Your task to perform on an android device: open device folders in google photos Image 0: 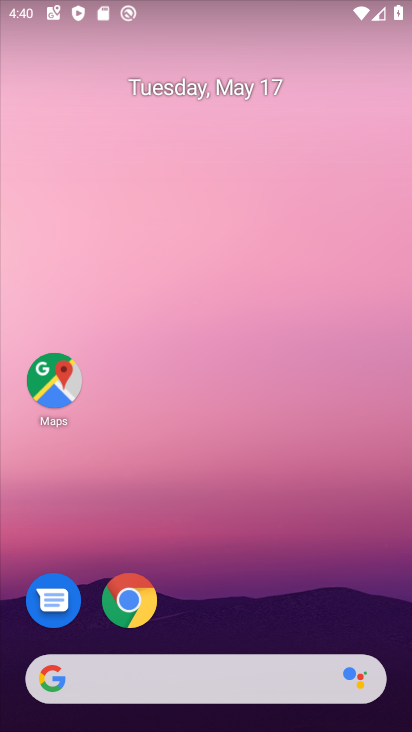
Step 0: drag from (218, 636) to (326, 69)
Your task to perform on an android device: open device folders in google photos Image 1: 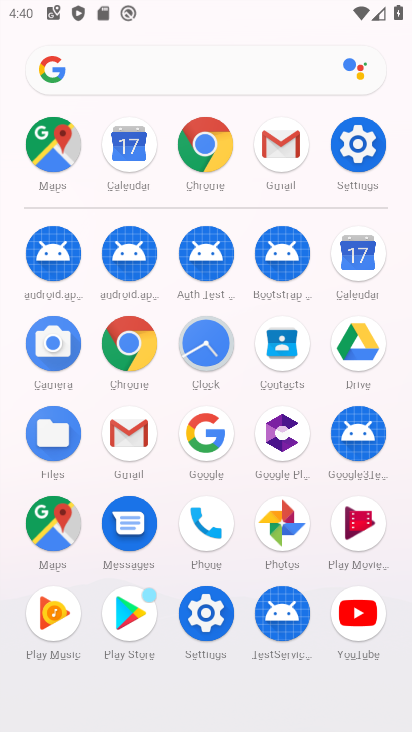
Step 1: click (286, 518)
Your task to perform on an android device: open device folders in google photos Image 2: 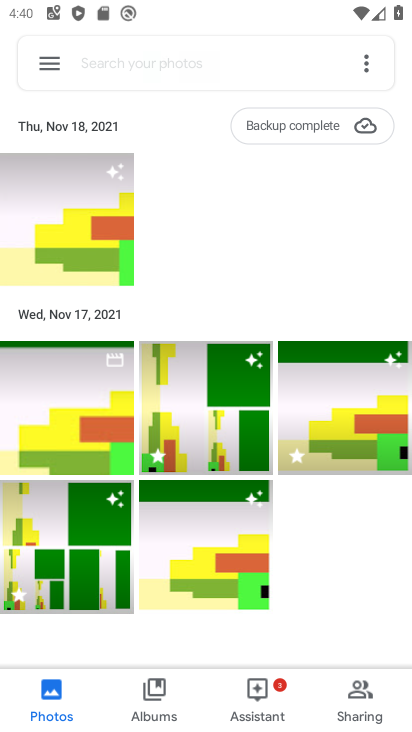
Step 2: click (57, 63)
Your task to perform on an android device: open device folders in google photos Image 3: 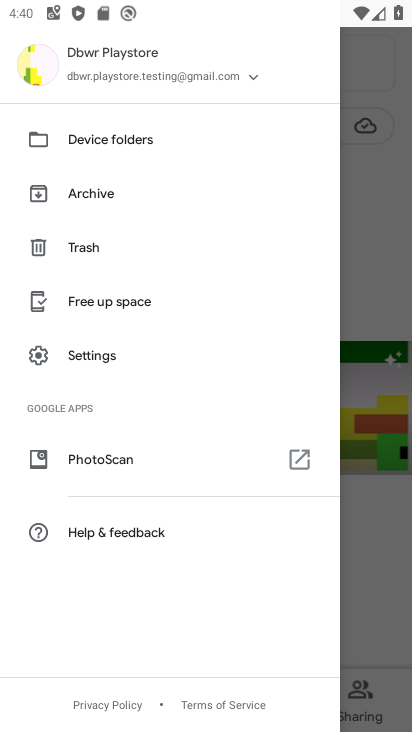
Step 3: click (89, 141)
Your task to perform on an android device: open device folders in google photos Image 4: 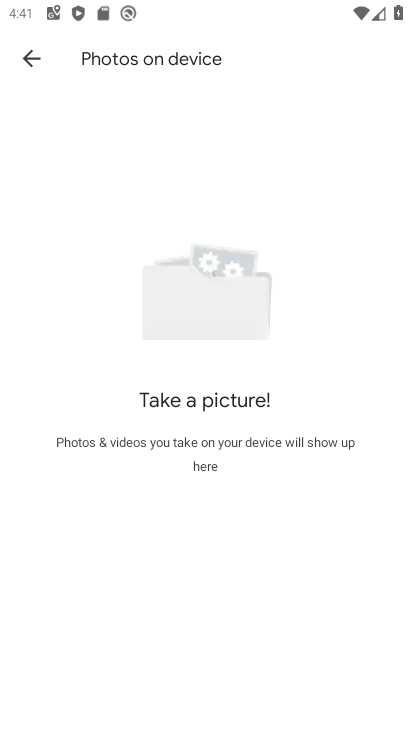
Step 4: task complete